Your task to perform on an android device: turn off notifications settings in the gmail app Image 0: 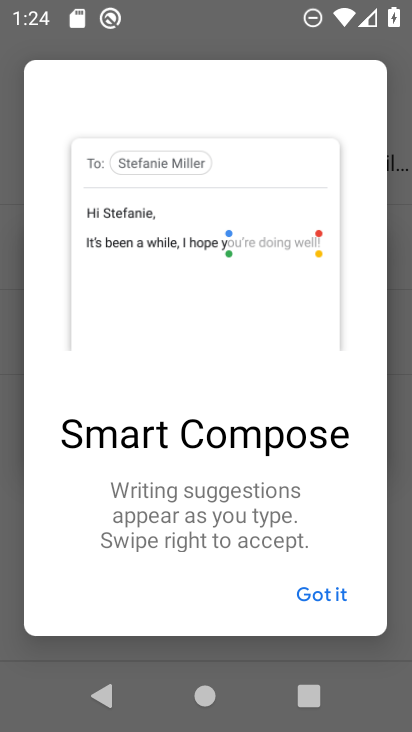
Step 0: press home button
Your task to perform on an android device: turn off notifications settings in the gmail app Image 1: 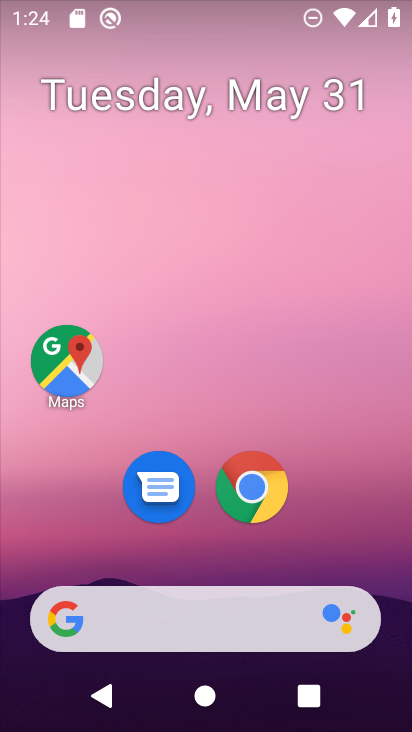
Step 1: drag from (110, 602) to (218, 95)
Your task to perform on an android device: turn off notifications settings in the gmail app Image 2: 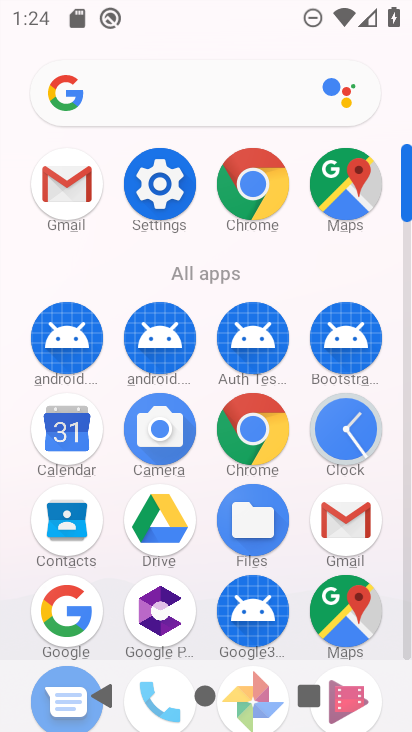
Step 2: click (356, 524)
Your task to perform on an android device: turn off notifications settings in the gmail app Image 3: 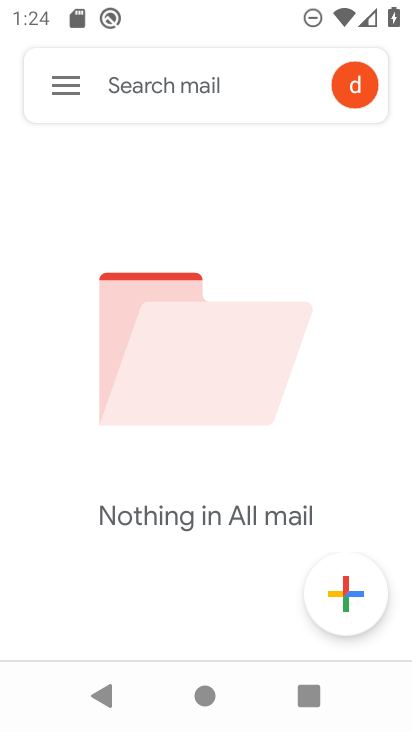
Step 3: click (87, 80)
Your task to perform on an android device: turn off notifications settings in the gmail app Image 4: 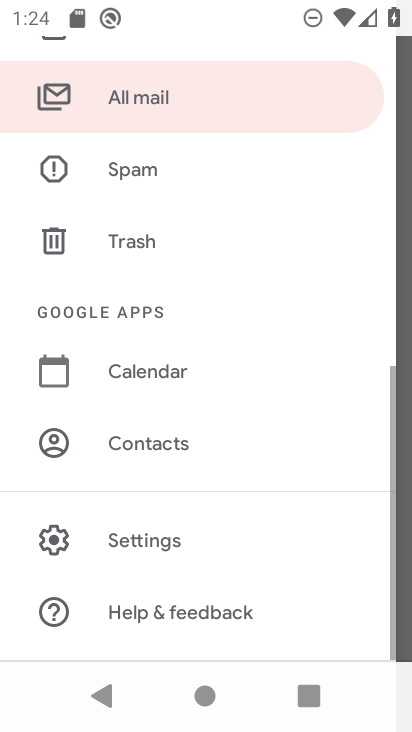
Step 4: drag from (103, 627) to (170, 318)
Your task to perform on an android device: turn off notifications settings in the gmail app Image 5: 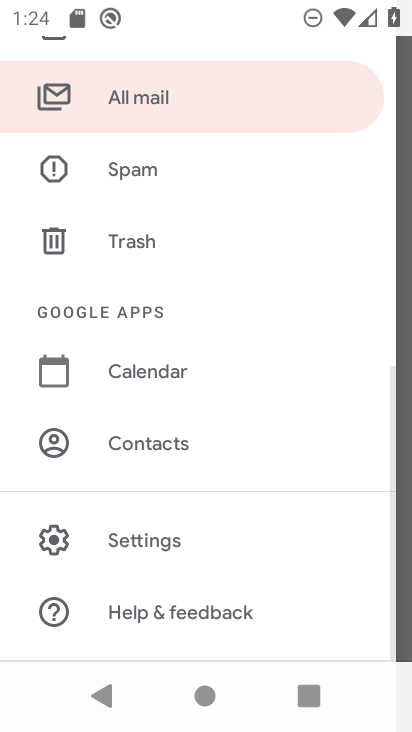
Step 5: click (136, 558)
Your task to perform on an android device: turn off notifications settings in the gmail app Image 6: 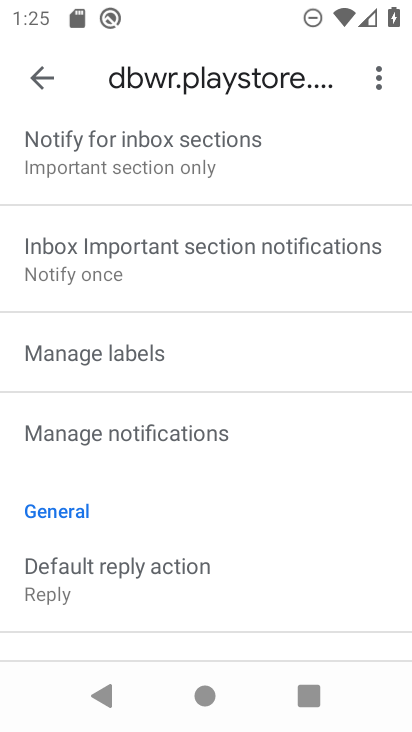
Step 6: click (200, 441)
Your task to perform on an android device: turn off notifications settings in the gmail app Image 7: 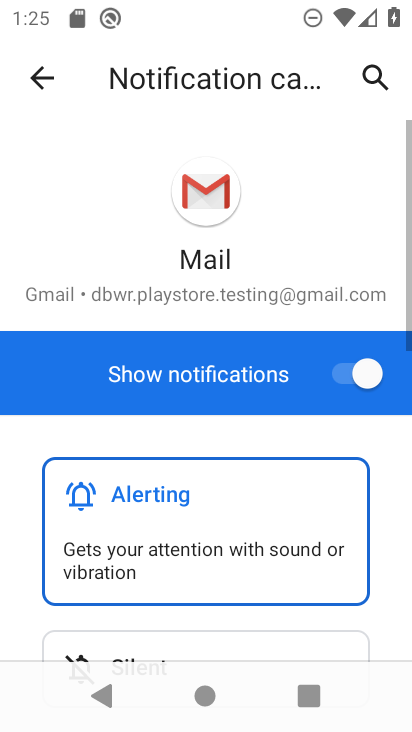
Step 7: click (339, 362)
Your task to perform on an android device: turn off notifications settings in the gmail app Image 8: 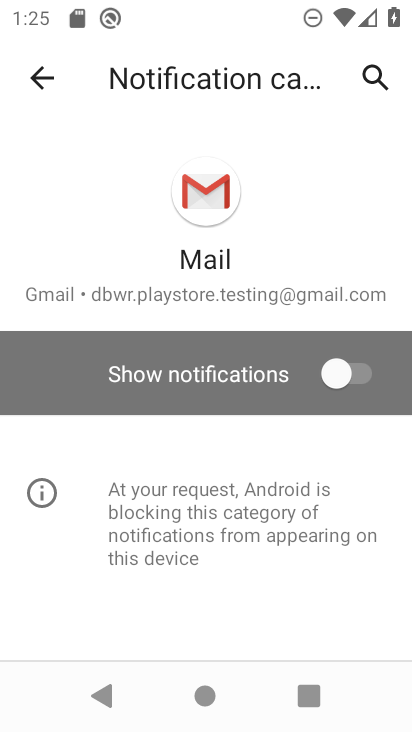
Step 8: task complete